Your task to perform on an android device: Open Google Image 0: 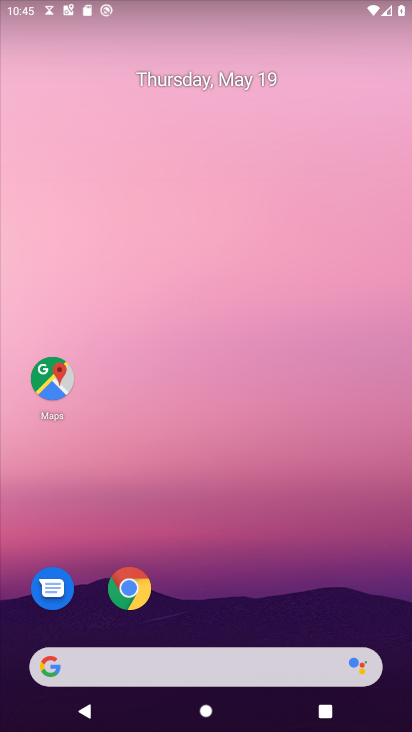
Step 0: drag from (338, 601) to (250, 42)
Your task to perform on an android device: Open Google Image 1: 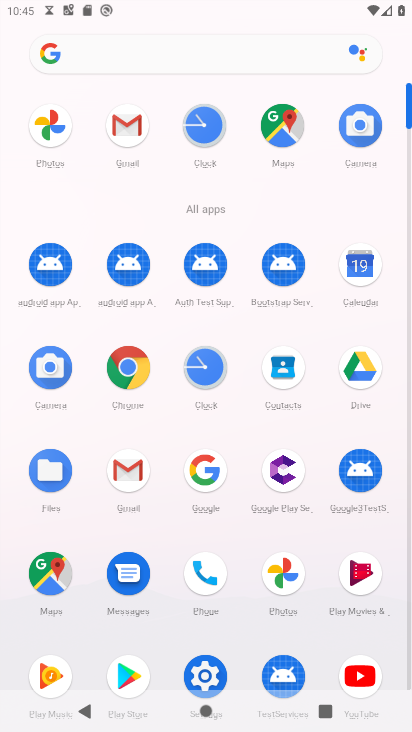
Step 1: click (206, 481)
Your task to perform on an android device: Open Google Image 2: 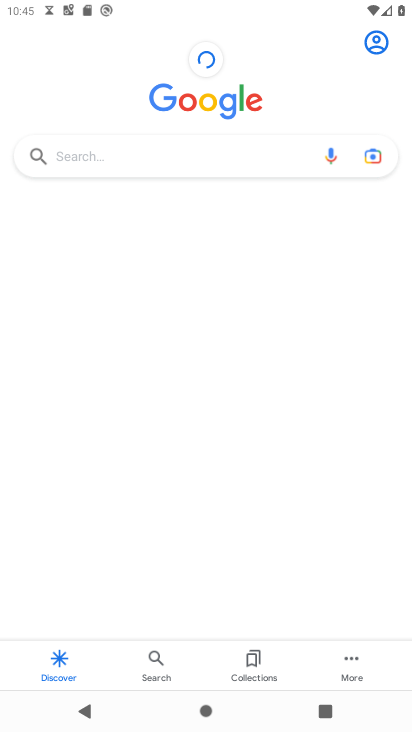
Step 2: task complete